Your task to perform on an android device: open chrome and create a bookmark for the current page Image 0: 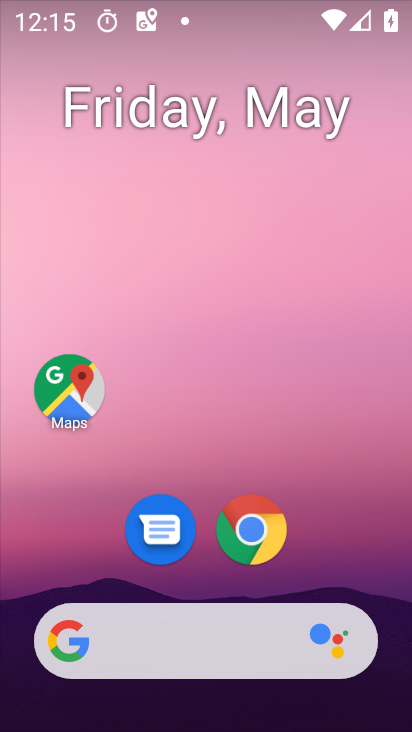
Step 0: drag from (253, 651) to (280, 156)
Your task to perform on an android device: open chrome and create a bookmark for the current page Image 1: 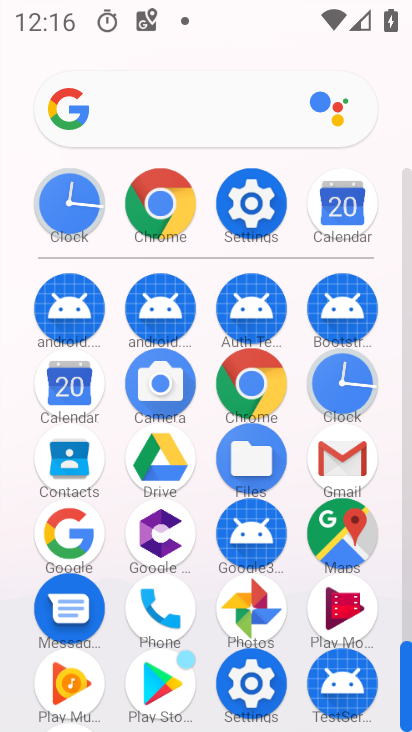
Step 1: click (166, 209)
Your task to perform on an android device: open chrome and create a bookmark for the current page Image 2: 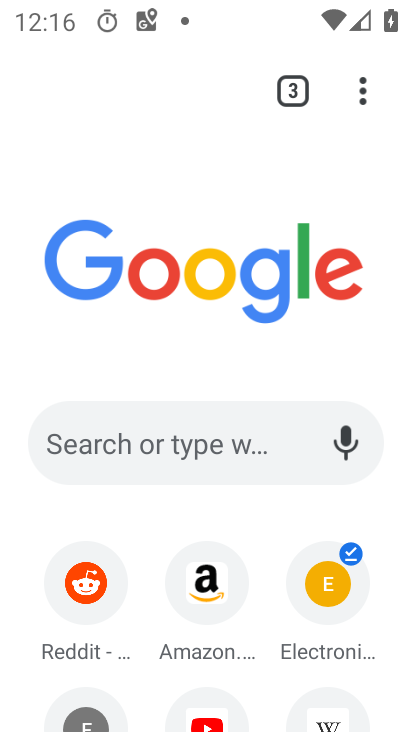
Step 2: click (363, 93)
Your task to perform on an android device: open chrome and create a bookmark for the current page Image 3: 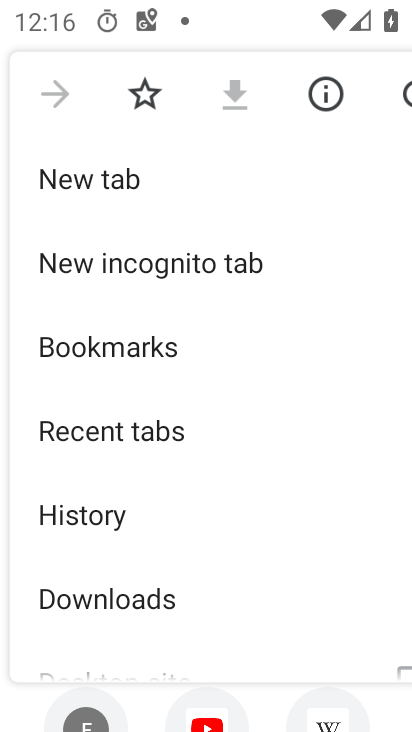
Step 3: click (136, 94)
Your task to perform on an android device: open chrome and create a bookmark for the current page Image 4: 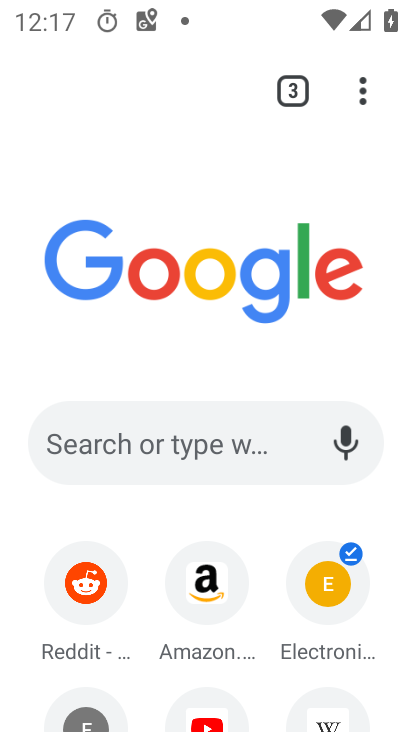
Step 4: task complete